Your task to perform on an android device: toggle translation in the chrome app Image 0: 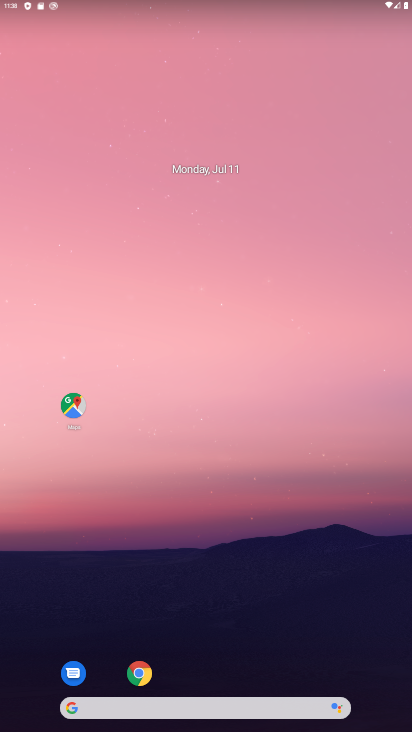
Step 0: press home button
Your task to perform on an android device: toggle translation in the chrome app Image 1: 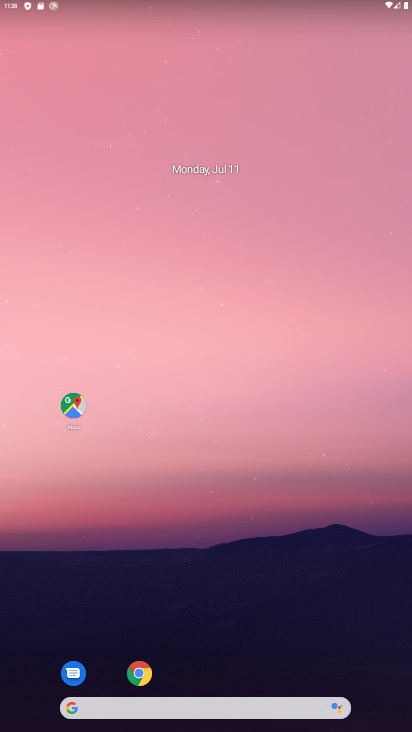
Step 1: click (132, 669)
Your task to perform on an android device: toggle translation in the chrome app Image 2: 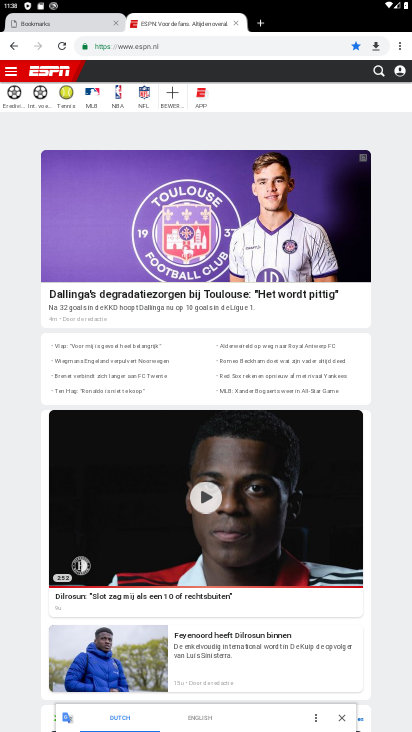
Step 2: click (394, 42)
Your task to perform on an android device: toggle translation in the chrome app Image 3: 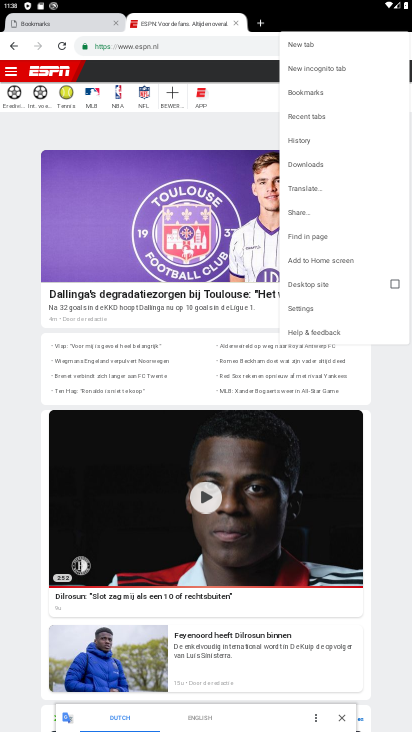
Step 3: click (314, 302)
Your task to perform on an android device: toggle translation in the chrome app Image 4: 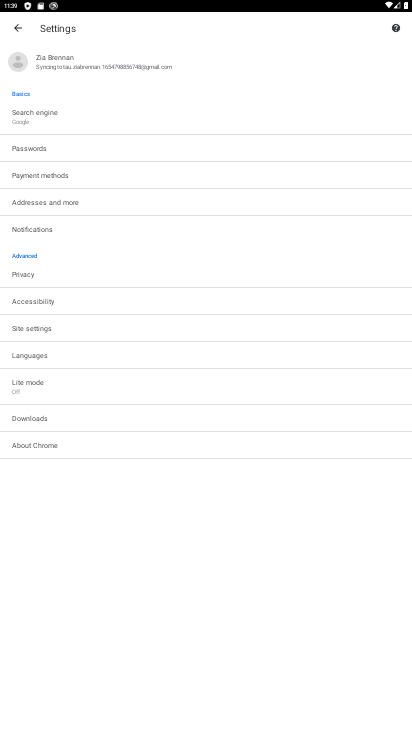
Step 4: click (58, 359)
Your task to perform on an android device: toggle translation in the chrome app Image 5: 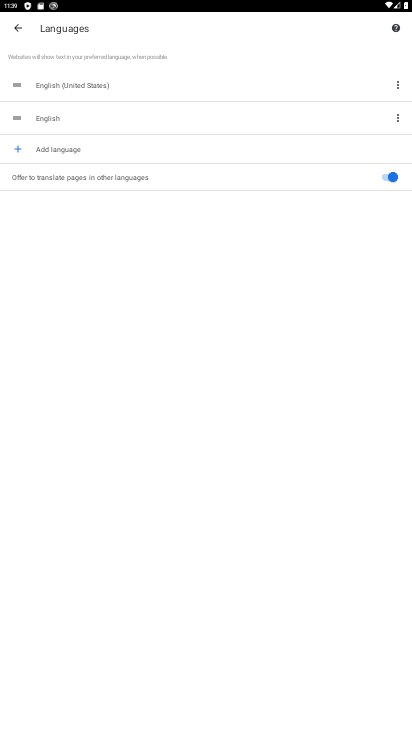
Step 5: click (382, 176)
Your task to perform on an android device: toggle translation in the chrome app Image 6: 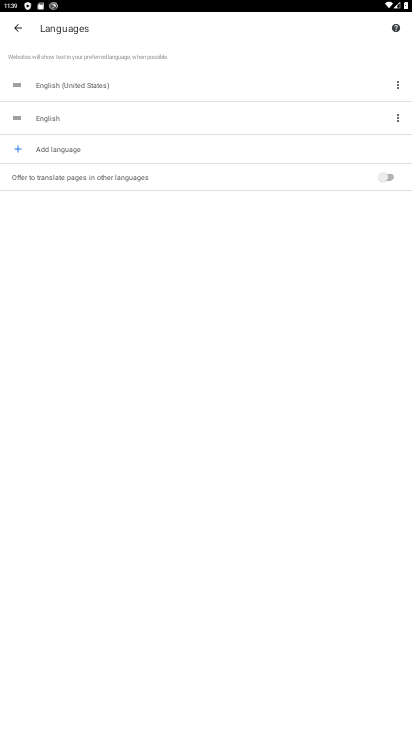
Step 6: task complete